Your task to perform on an android device: move an email to a new category in the gmail app Image 0: 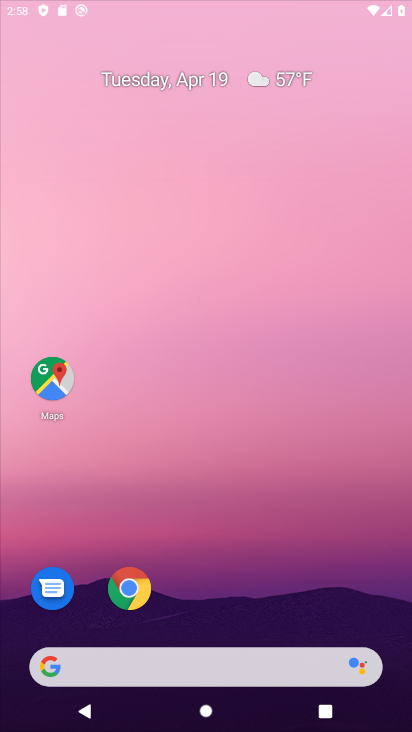
Step 0: drag from (200, 617) to (193, 120)
Your task to perform on an android device: move an email to a new category in the gmail app Image 1: 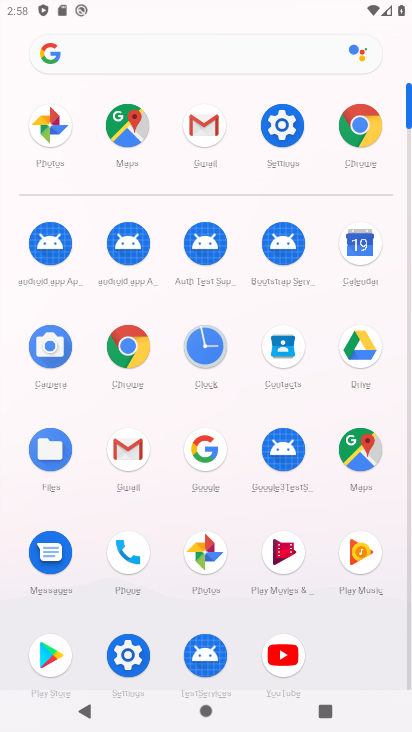
Step 1: click (114, 449)
Your task to perform on an android device: move an email to a new category in the gmail app Image 2: 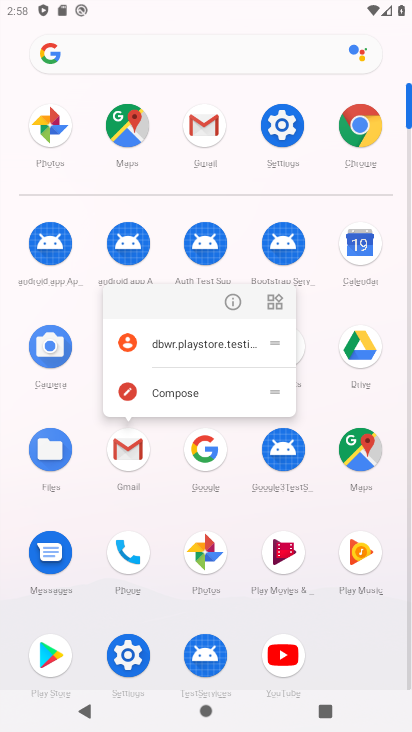
Step 2: click (227, 310)
Your task to perform on an android device: move an email to a new category in the gmail app Image 3: 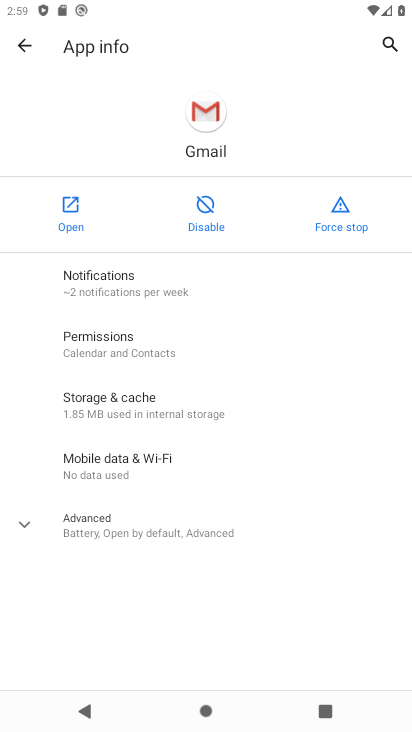
Step 3: click (71, 212)
Your task to perform on an android device: move an email to a new category in the gmail app Image 4: 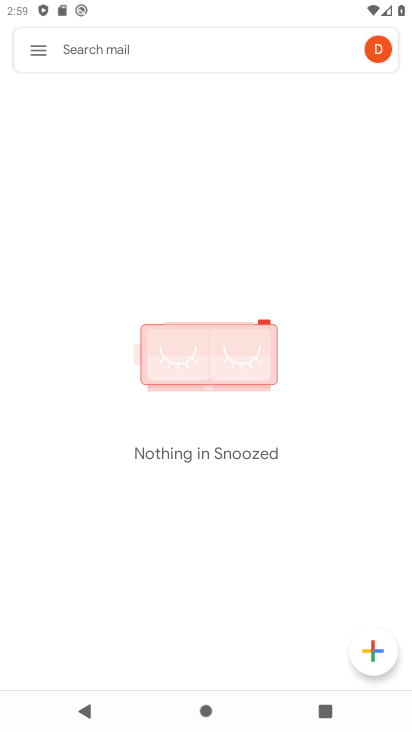
Step 4: task complete